Your task to perform on an android device: Open the Play Movies app and select the watchlist tab. Image 0: 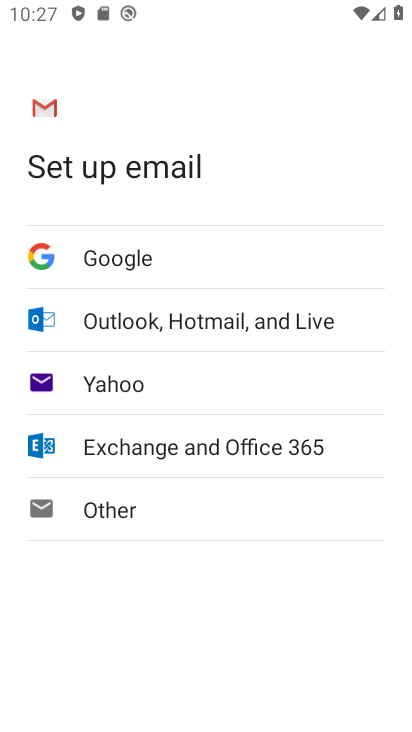
Step 0: press home button
Your task to perform on an android device: Open the Play Movies app and select the watchlist tab. Image 1: 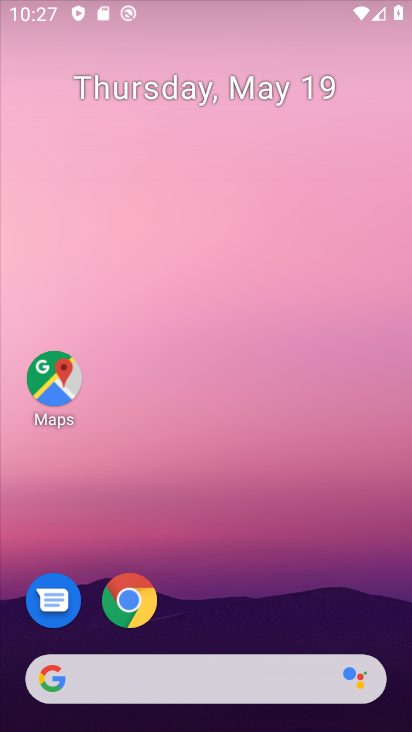
Step 1: drag from (332, 566) to (314, 86)
Your task to perform on an android device: Open the Play Movies app and select the watchlist tab. Image 2: 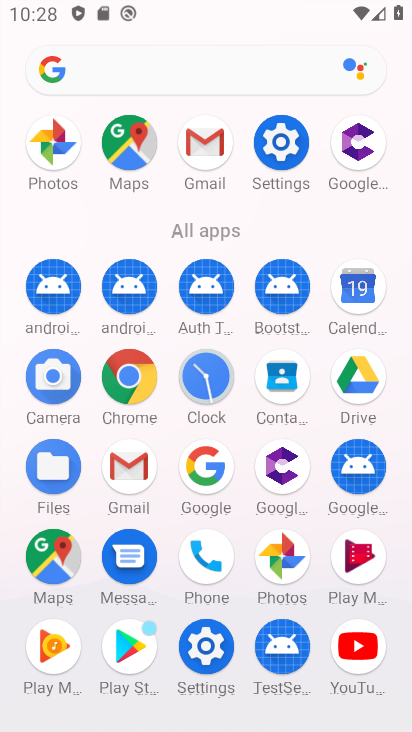
Step 2: click (376, 546)
Your task to perform on an android device: Open the Play Movies app and select the watchlist tab. Image 3: 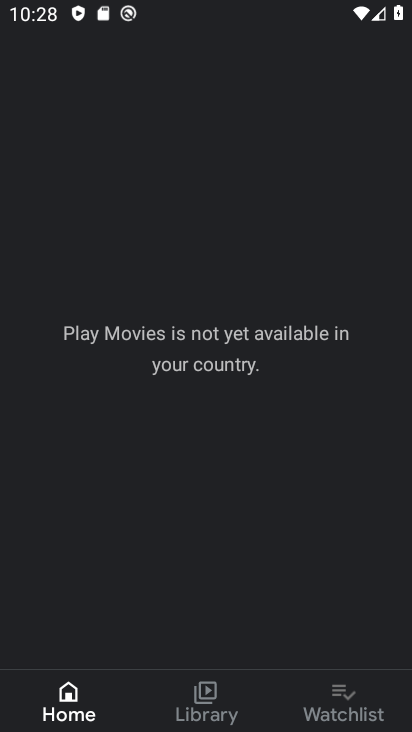
Step 3: click (322, 710)
Your task to perform on an android device: Open the Play Movies app and select the watchlist tab. Image 4: 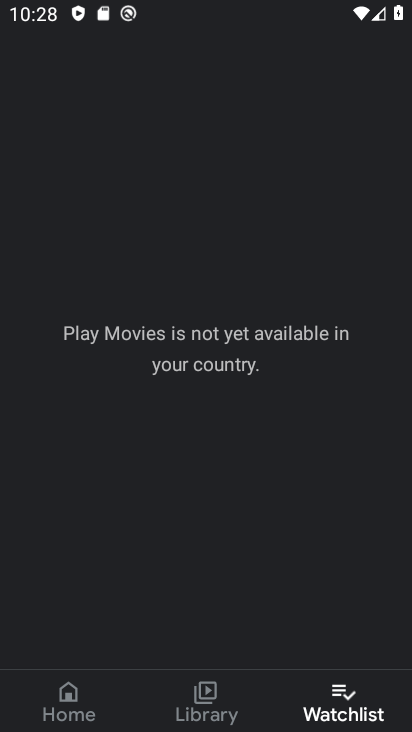
Step 4: task complete